Your task to perform on an android device: turn off translation in the chrome app Image 0: 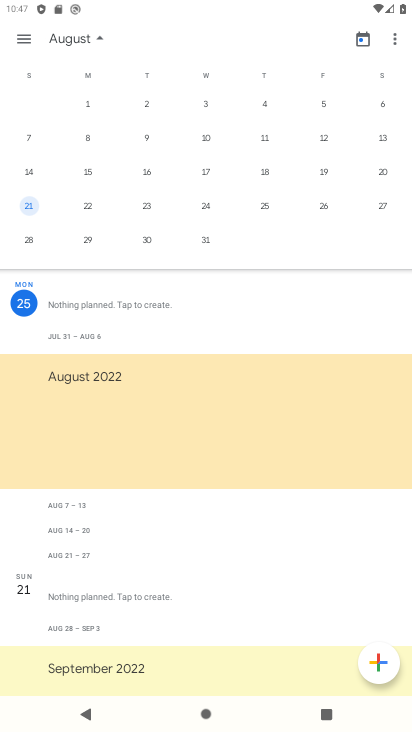
Step 0: press home button
Your task to perform on an android device: turn off translation in the chrome app Image 1: 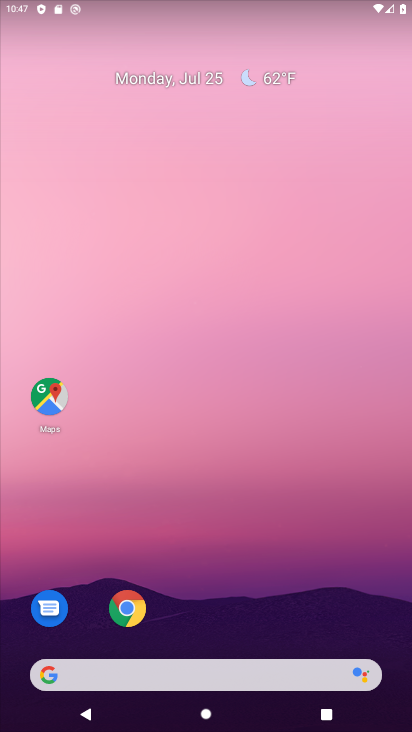
Step 1: drag from (222, 669) to (222, 104)
Your task to perform on an android device: turn off translation in the chrome app Image 2: 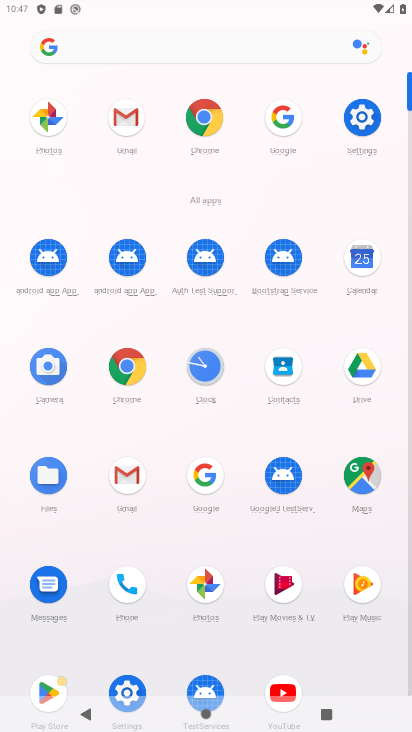
Step 2: click (208, 110)
Your task to perform on an android device: turn off translation in the chrome app Image 3: 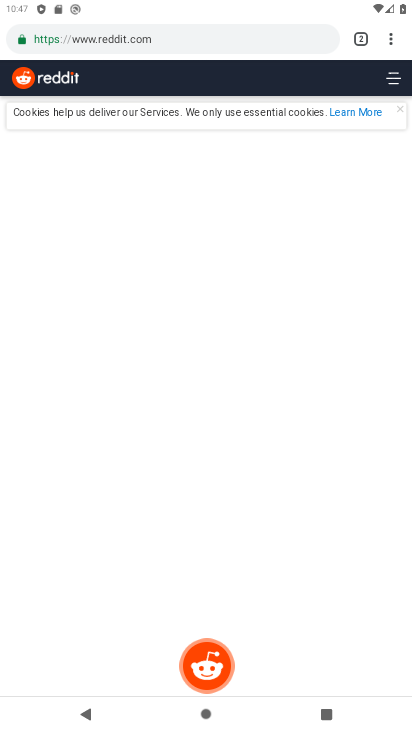
Step 3: click (395, 36)
Your task to perform on an android device: turn off translation in the chrome app Image 4: 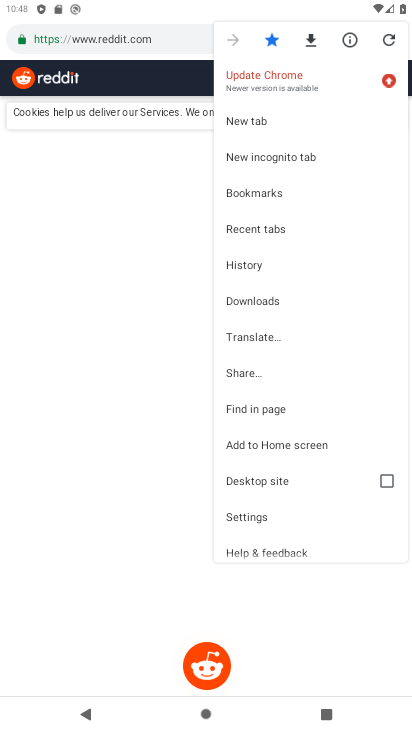
Step 4: click (253, 511)
Your task to perform on an android device: turn off translation in the chrome app Image 5: 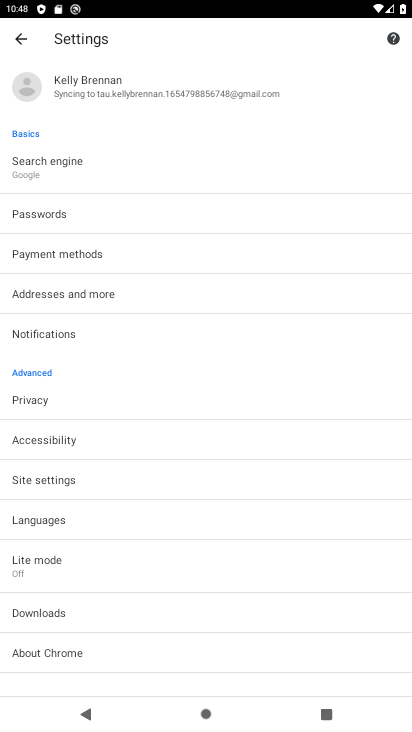
Step 5: click (33, 521)
Your task to perform on an android device: turn off translation in the chrome app Image 6: 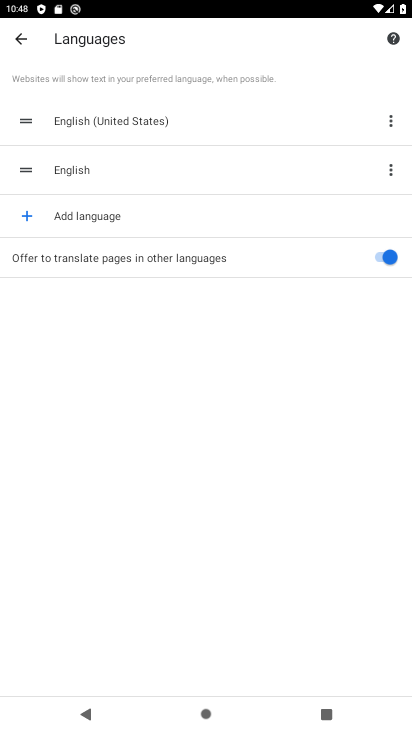
Step 6: click (383, 255)
Your task to perform on an android device: turn off translation in the chrome app Image 7: 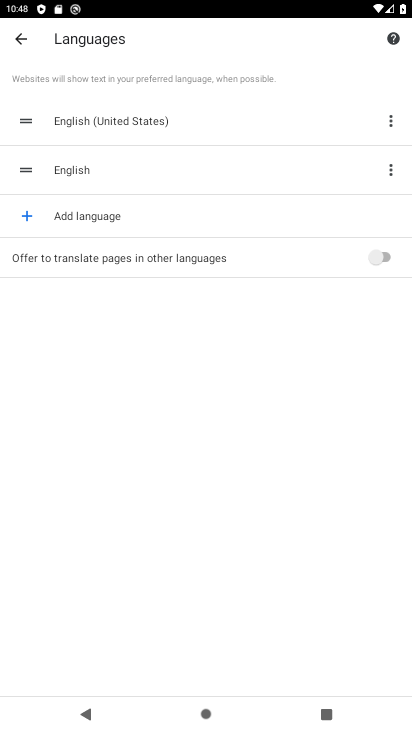
Step 7: task complete